Your task to perform on an android device: What's on my calendar today? Image 0: 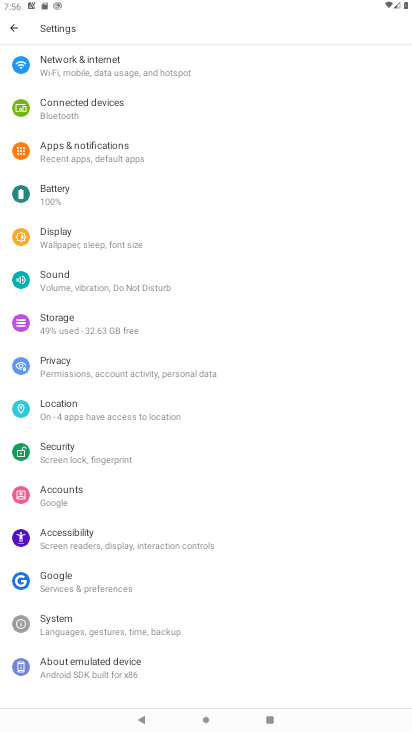
Step 0: press home button
Your task to perform on an android device: What's on my calendar today? Image 1: 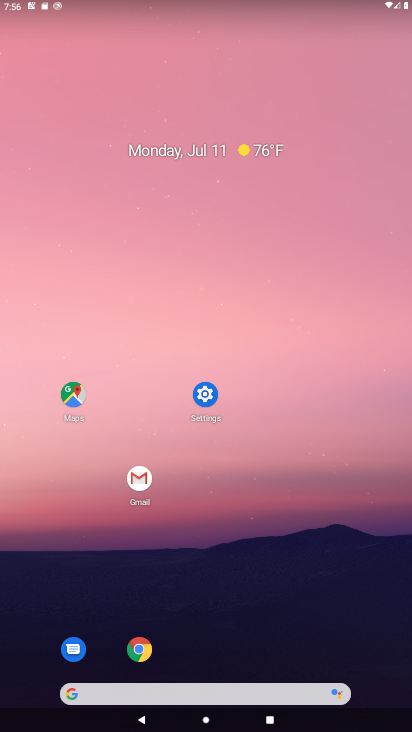
Step 1: drag from (389, 720) to (308, 128)
Your task to perform on an android device: What's on my calendar today? Image 2: 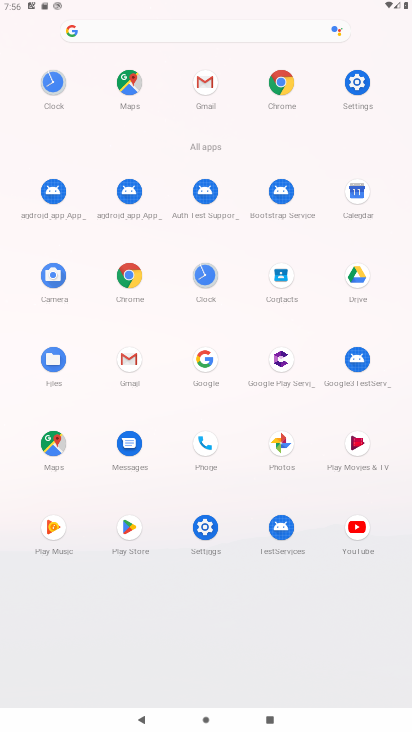
Step 2: click (357, 194)
Your task to perform on an android device: What's on my calendar today? Image 3: 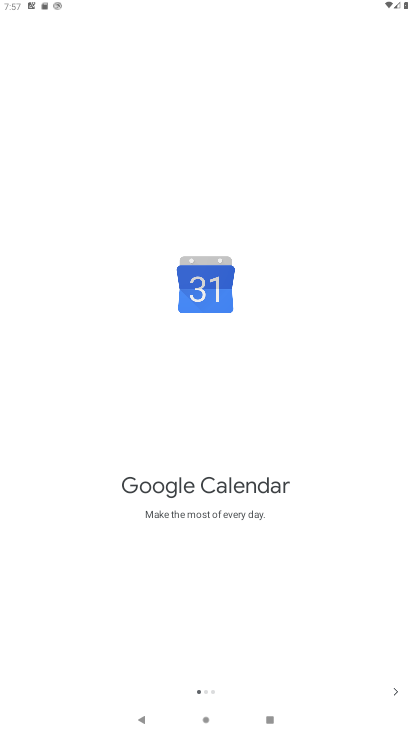
Step 3: click (211, 695)
Your task to perform on an android device: What's on my calendar today? Image 4: 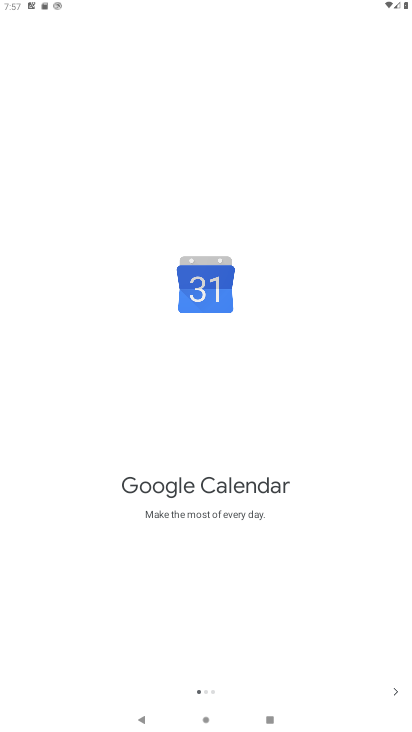
Step 4: click (394, 693)
Your task to perform on an android device: What's on my calendar today? Image 5: 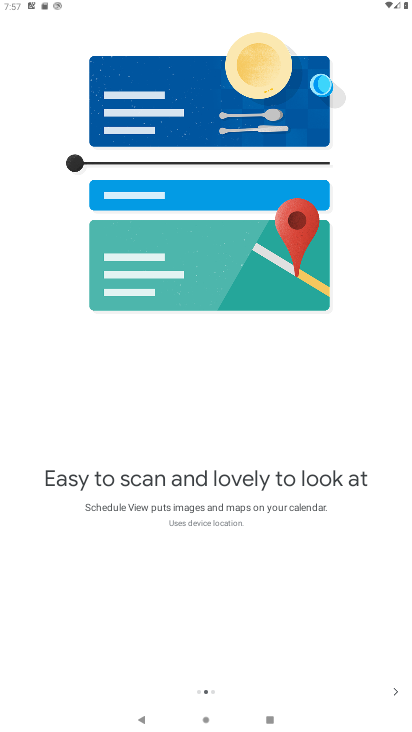
Step 5: click (397, 694)
Your task to perform on an android device: What's on my calendar today? Image 6: 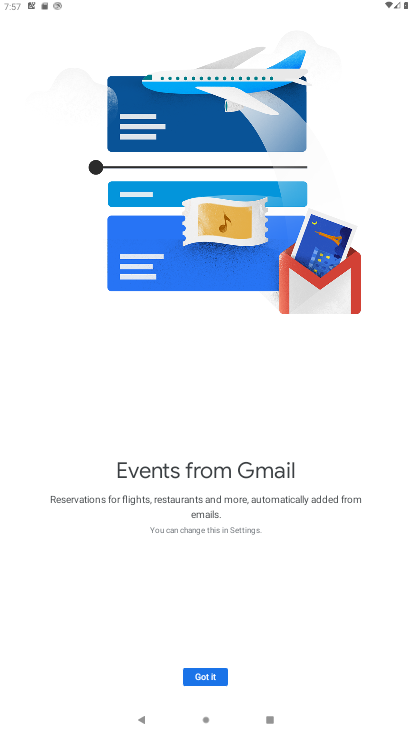
Step 6: click (205, 672)
Your task to perform on an android device: What's on my calendar today? Image 7: 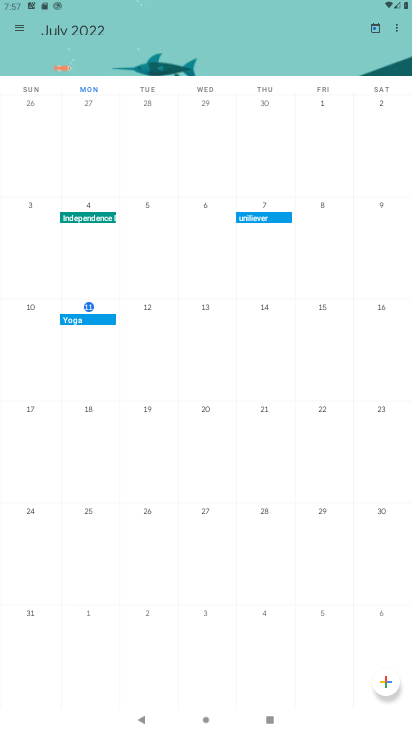
Step 7: click (70, 32)
Your task to perform on an android device: What's on my calendar today? Image 8: 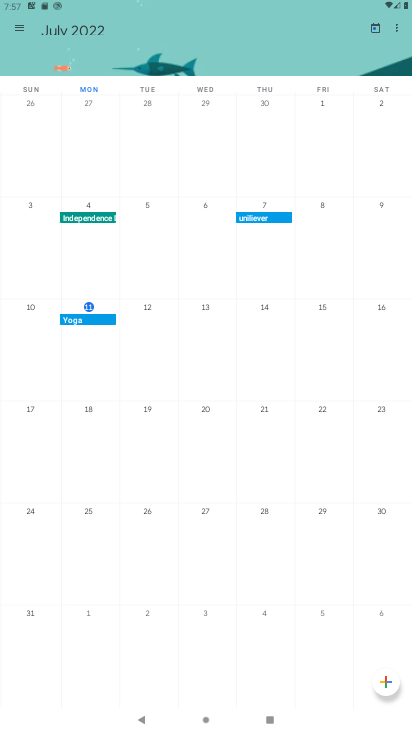
Step 8: click (86, 23)
Your task to perform on an android device: What's on my calendar today? Image 9: 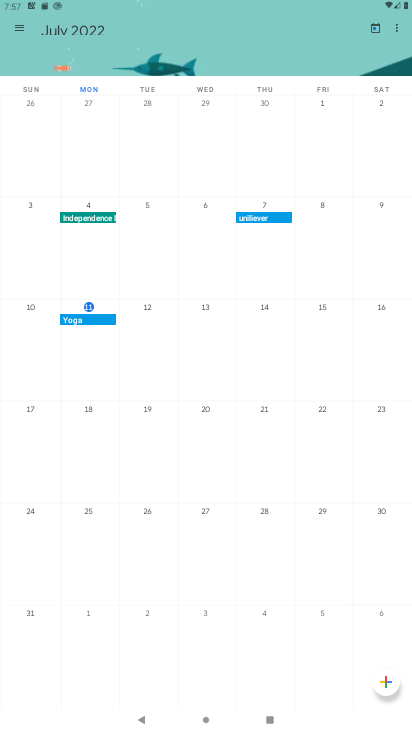
Step 9: click (80, 303)
Your task to perform on an android device: What's on my calendar today? Image 10: 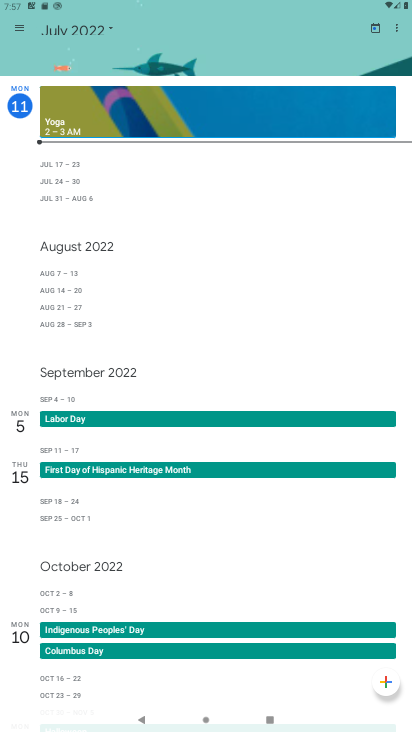
Step 10: task complete